Your task to perform on an android device: Search for hotels in Orlando Image 0: 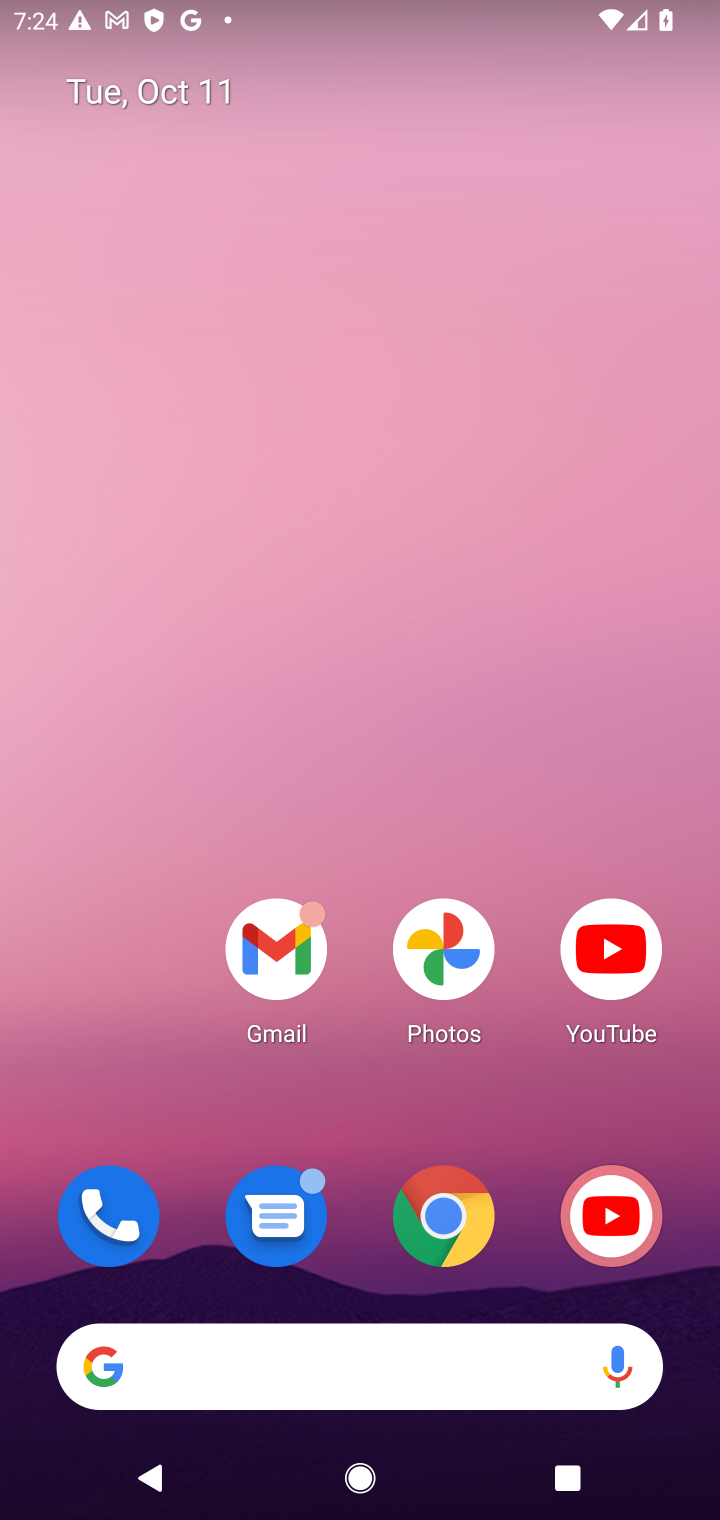
Step 0: click (470, 1222)
Your task to perform on an android device: Search for hotels in Orlando Image 1: 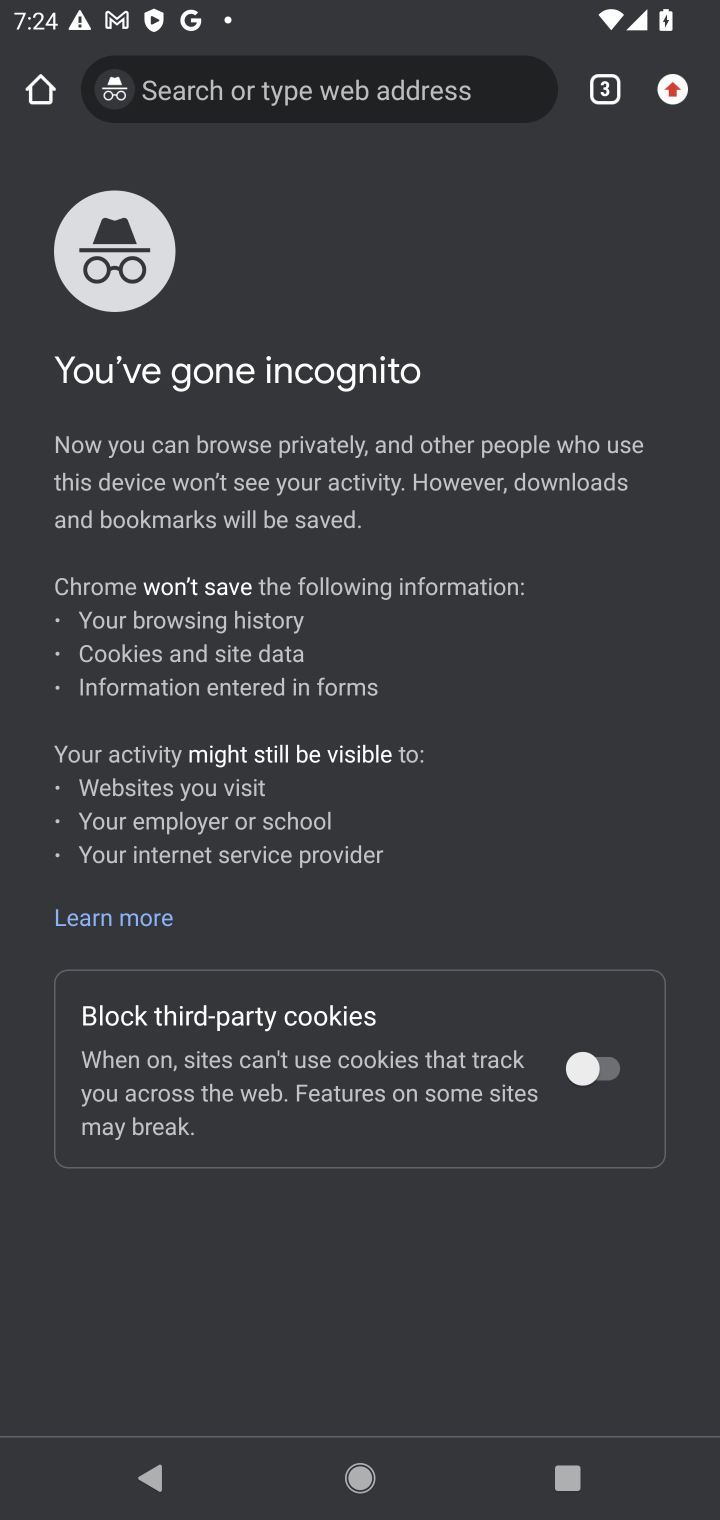
Step 1: click (594, 96)
Your task to perform on an android device: Search for hotels in Orlando Image 2: 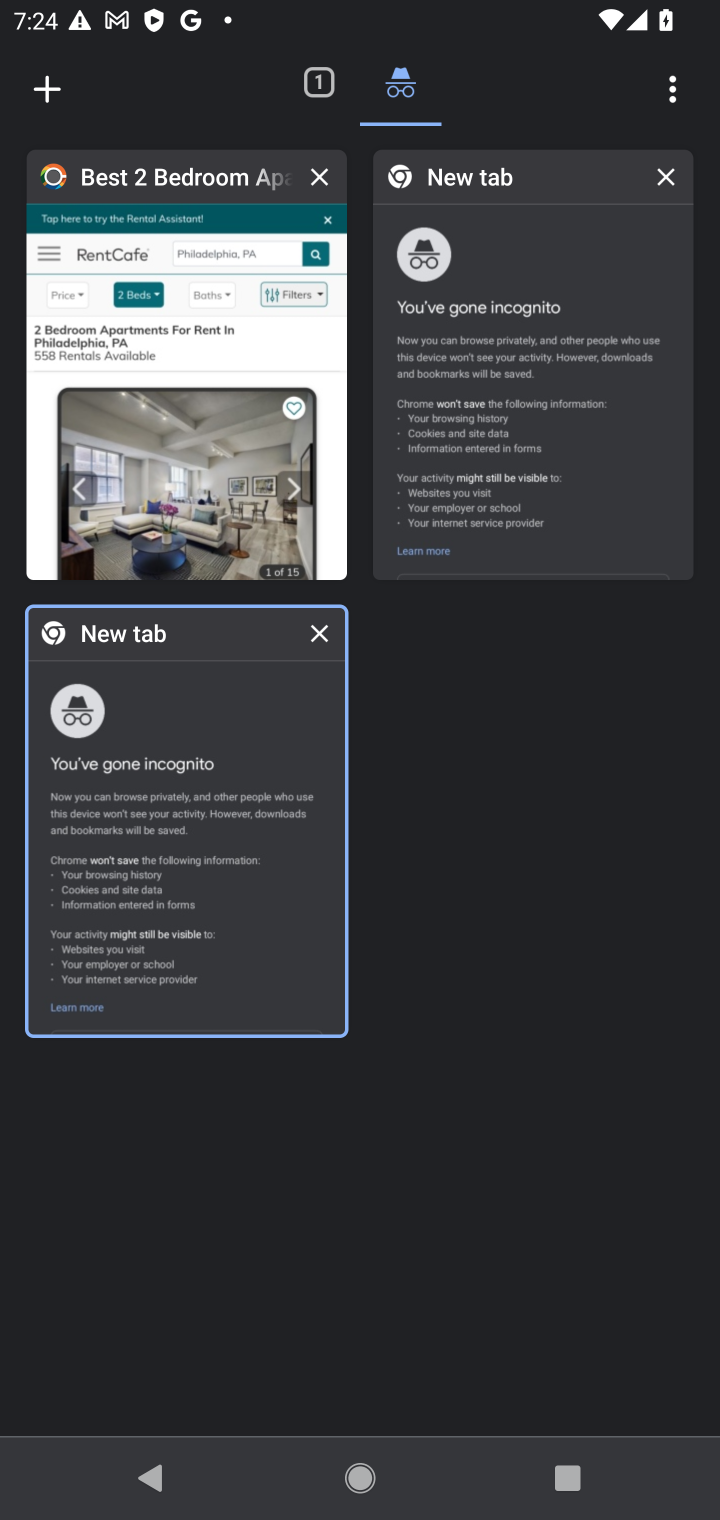
Step 2: click (317, 82)
Your task to perform on an android device: Search for hotels in Orlando Image 3: 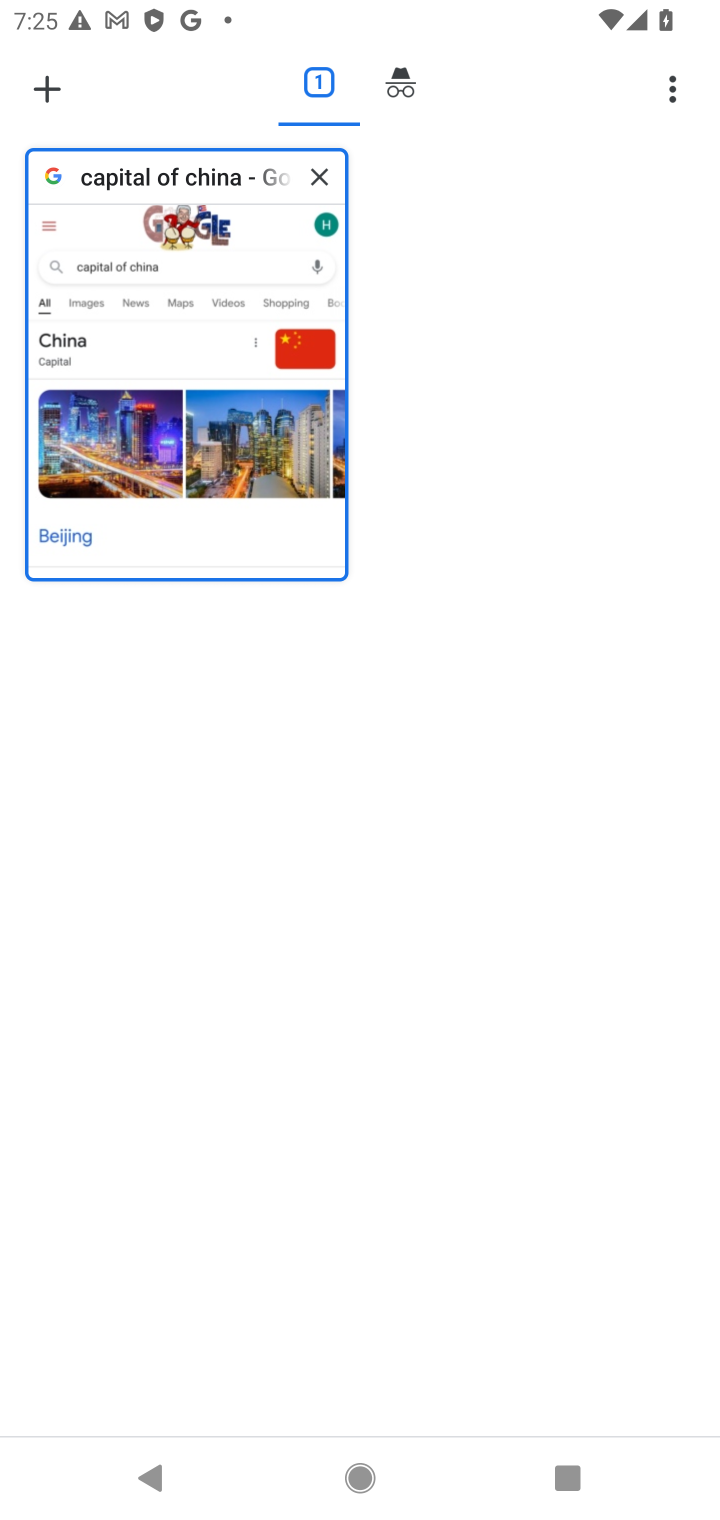
Step 3: click (246, 298)
Your task to perform on an android device: Search for hotels in Orlando Image 4: 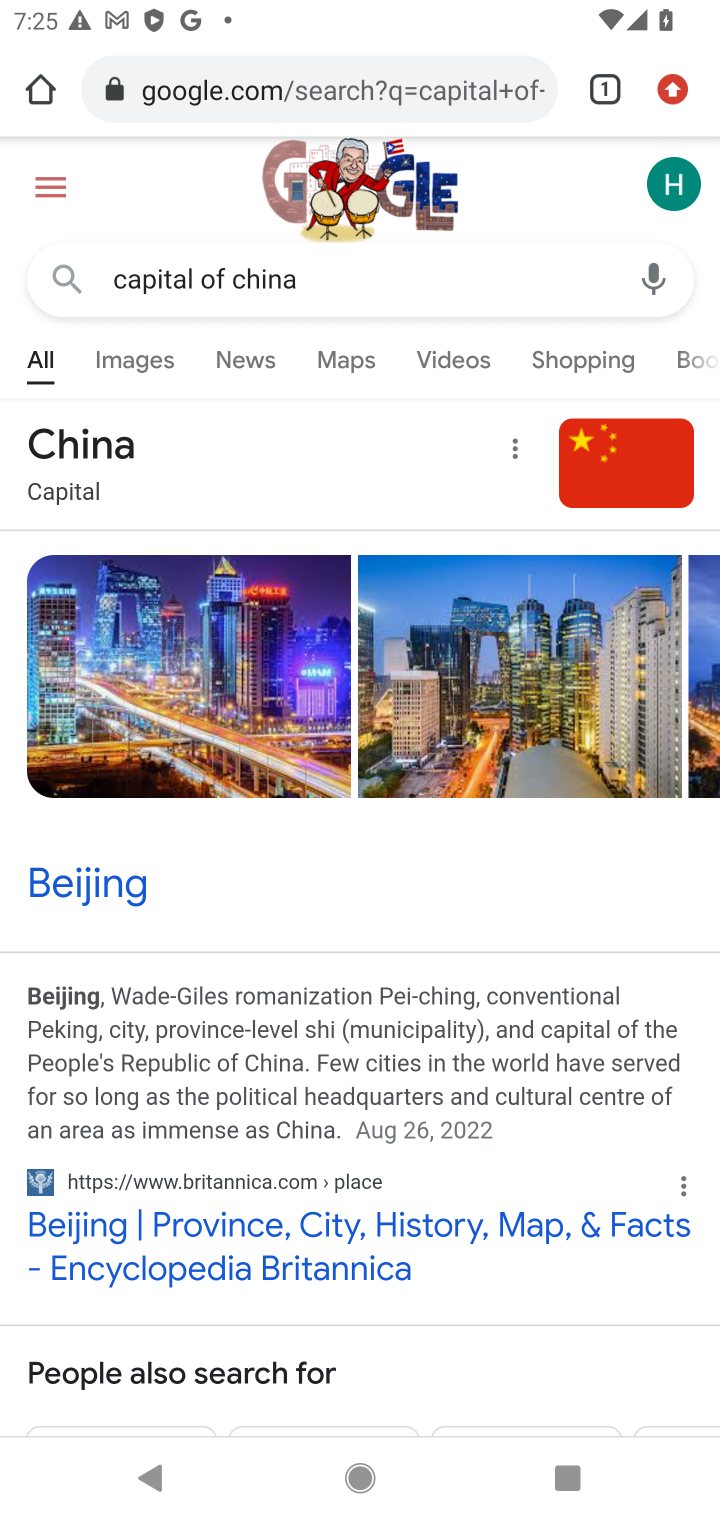
Step 4: click (397, 271)
Your task to perform on an android device: Search for hotels in Orlando Image 5: 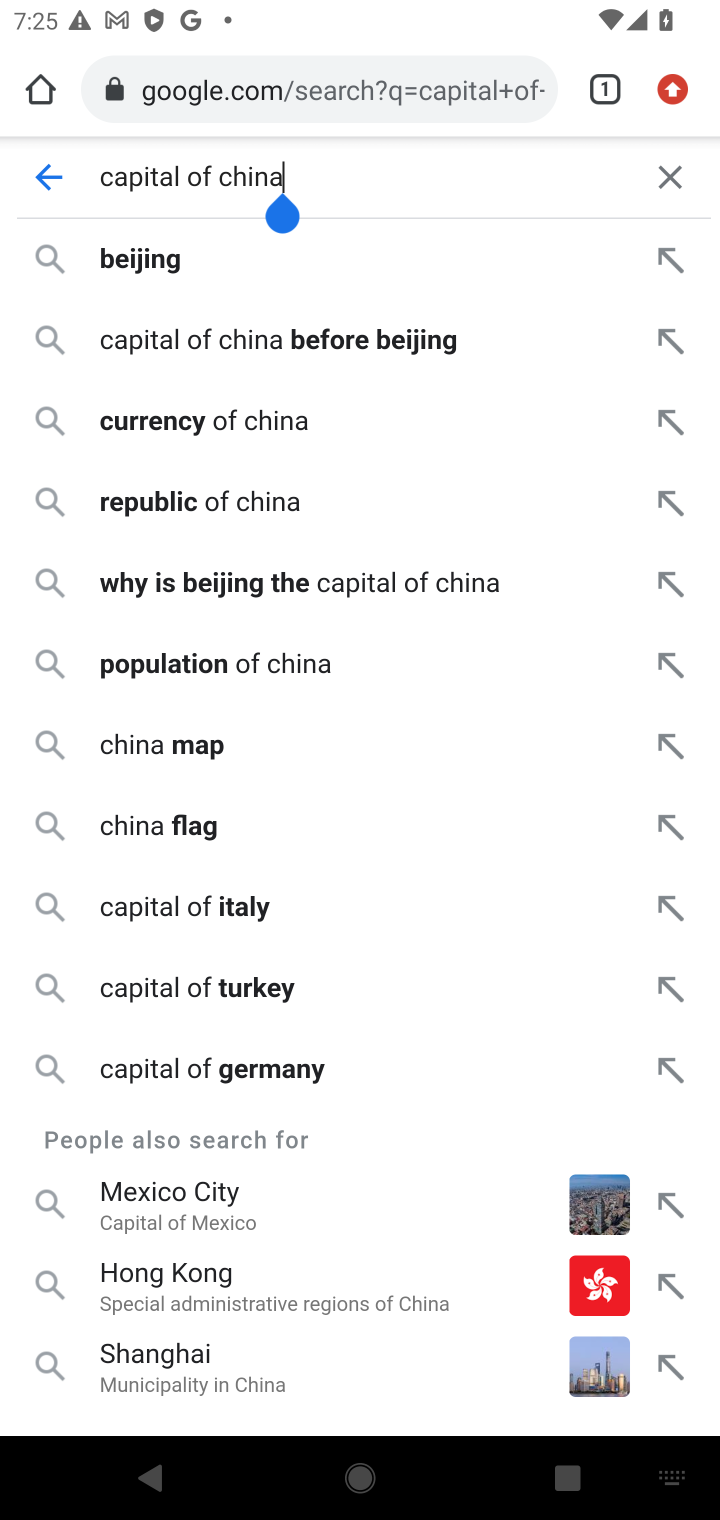
Step 5: click (650, 184)
Your task to perform on an android device: Search for hotels in Orlando Image 6: 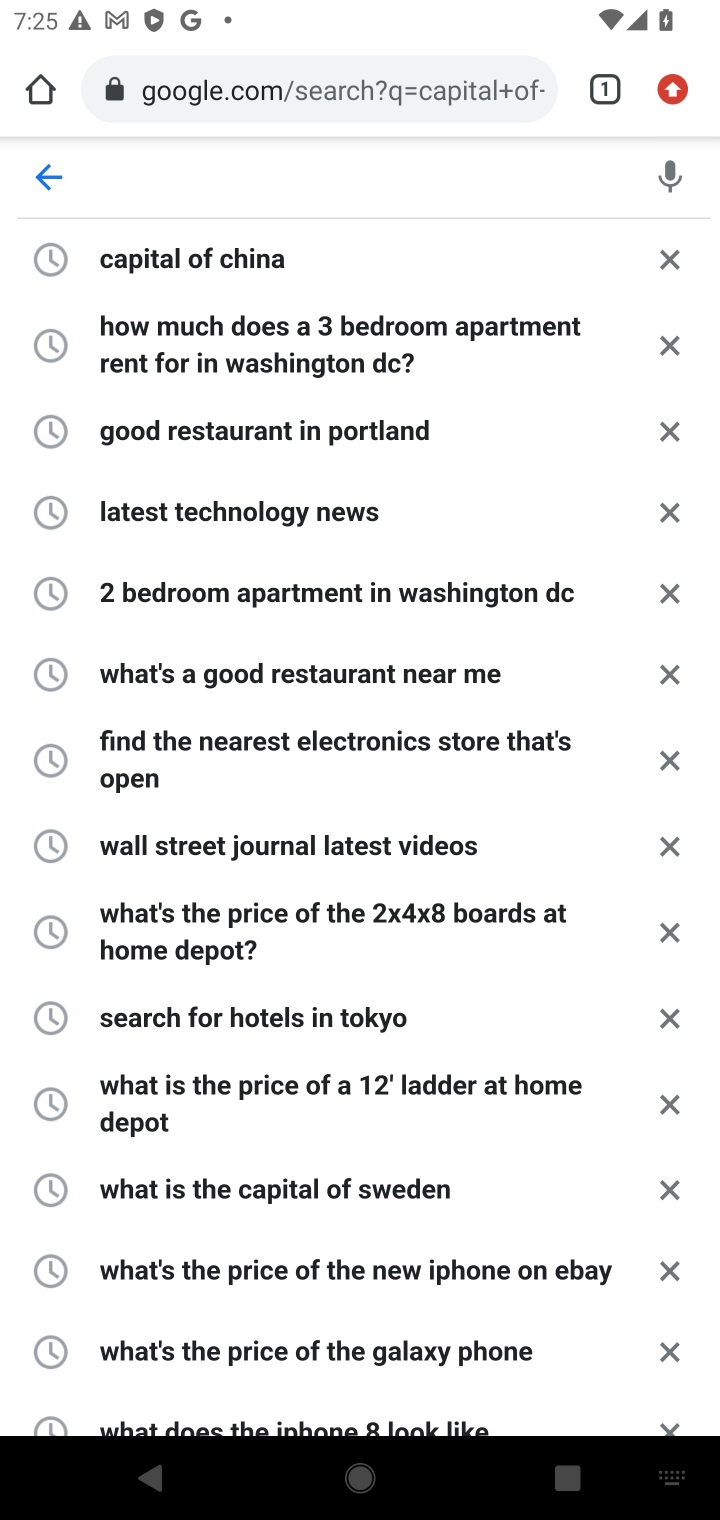
Step 6: type "hotels in orlando"
Your task to perform on an android device: Search for hotels in Orlando Image 7: 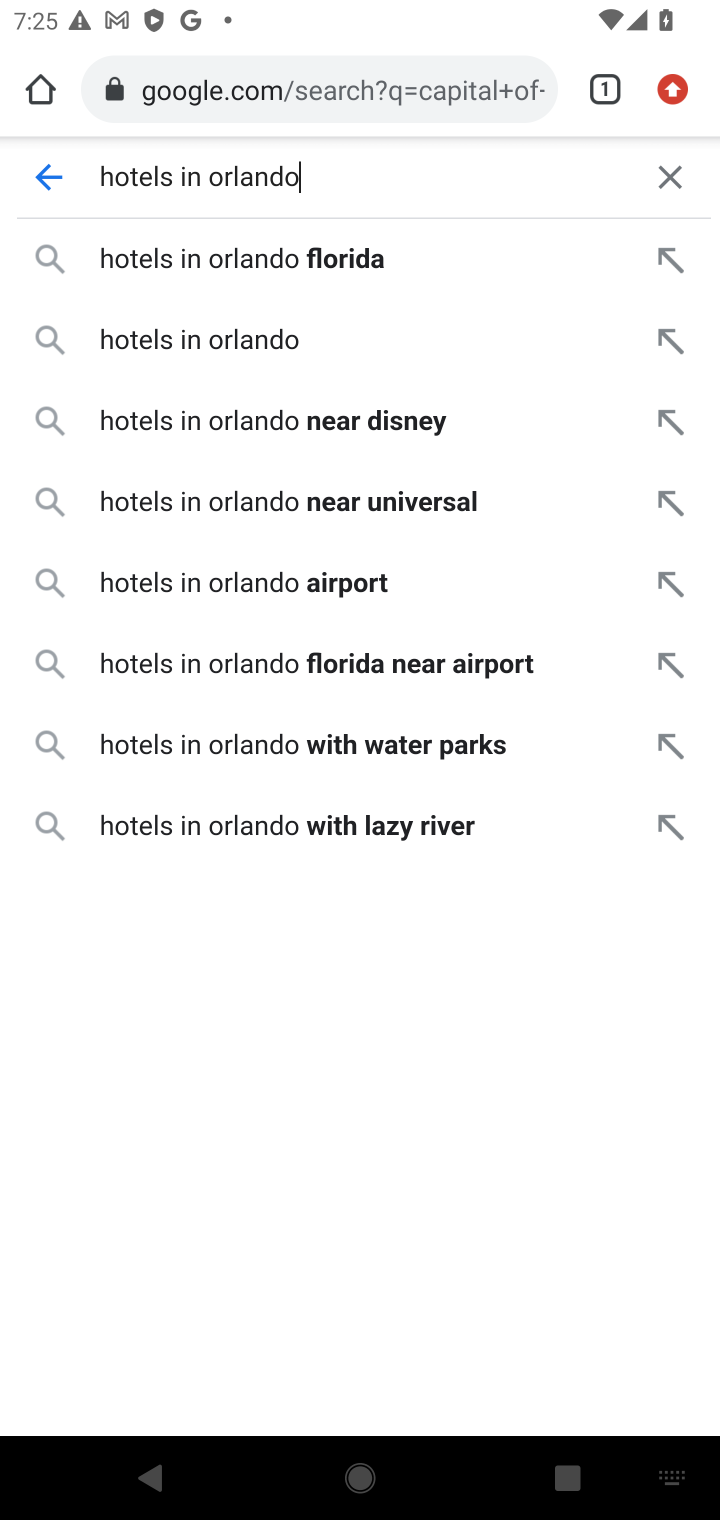
Step 7: press enter
Your task to perform on an android device: Search for hotels in Orlando Image 8: 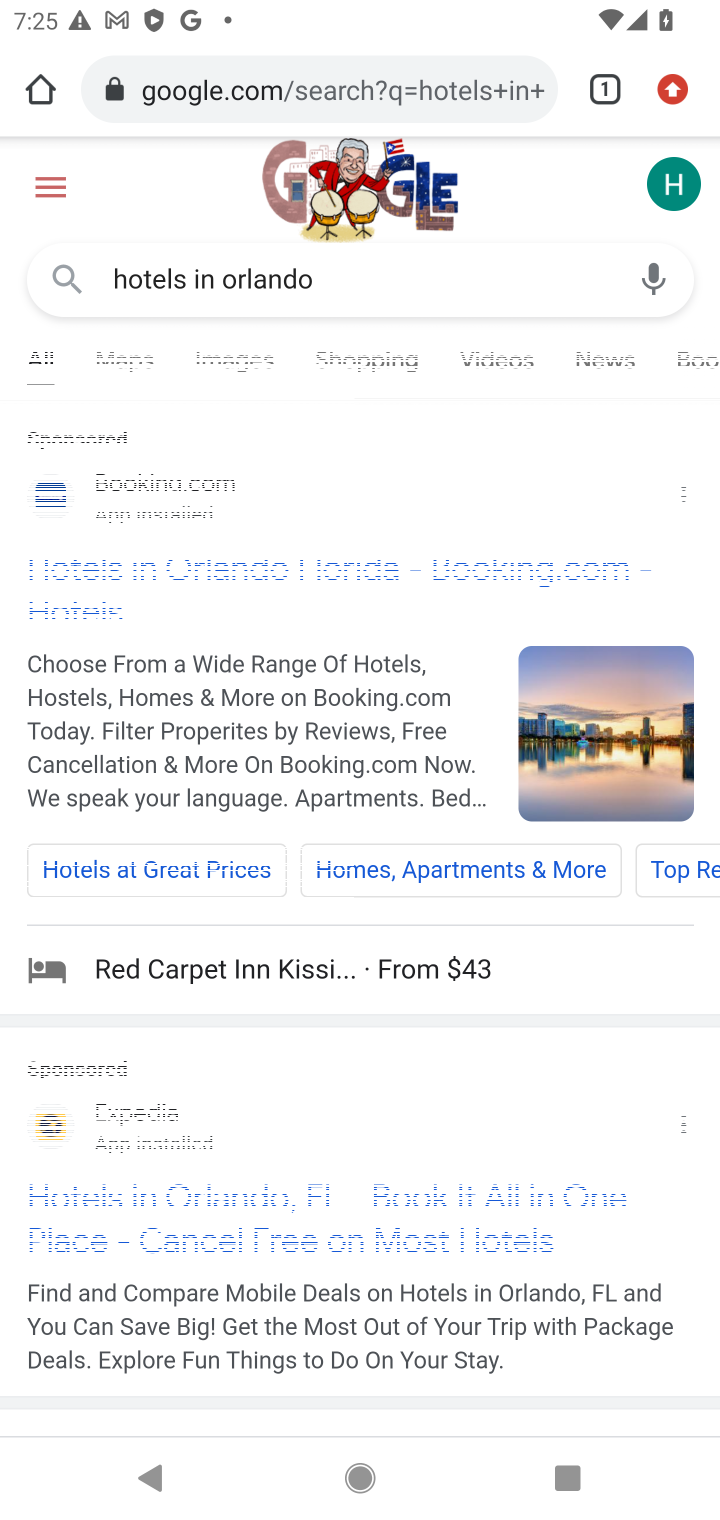
Step 8: task complete